Your task to perform on an android device: Open calendar and show me the fourth week of next month Image 0: 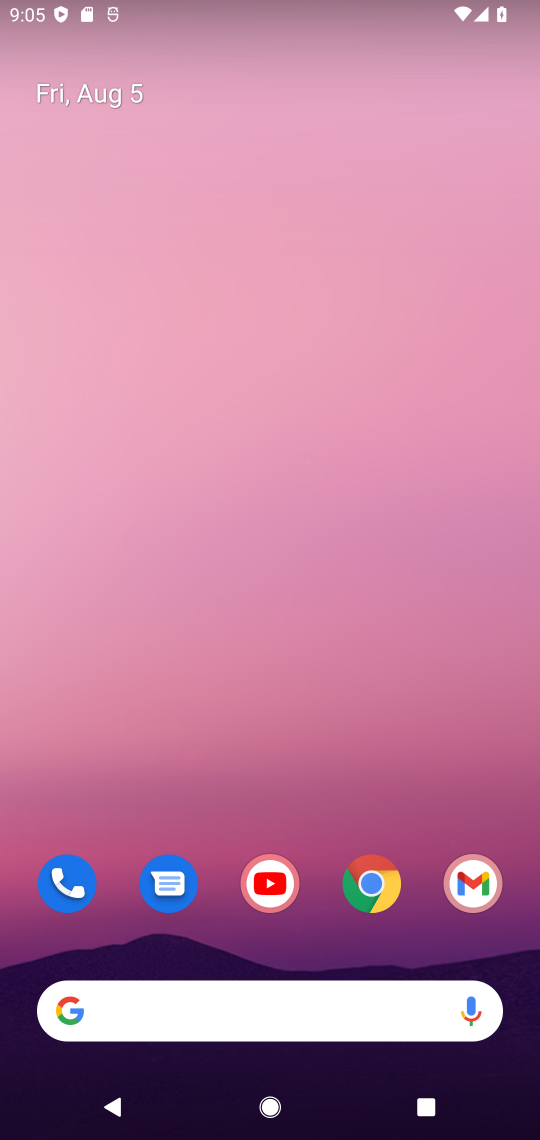
Step 0: drag from (245, 866) to (313, 224)
Your task to perform on an android device: Open calendar and show me the fourth week of next month Image 1: 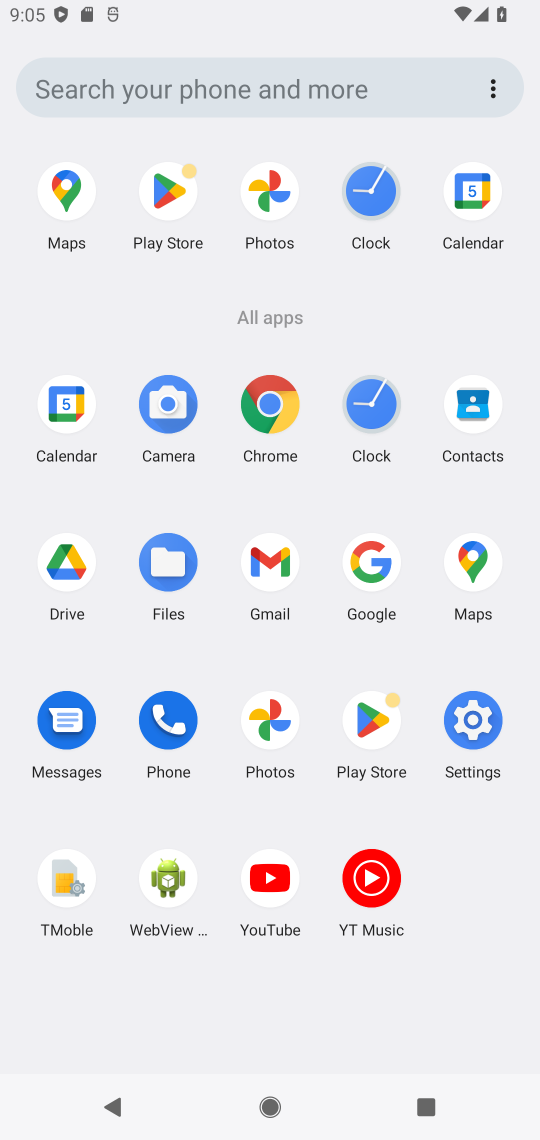
Step 1: click (463, 189)
Your task to perform on an android device: Open calendar and show me the fourth week of next month Image 2: 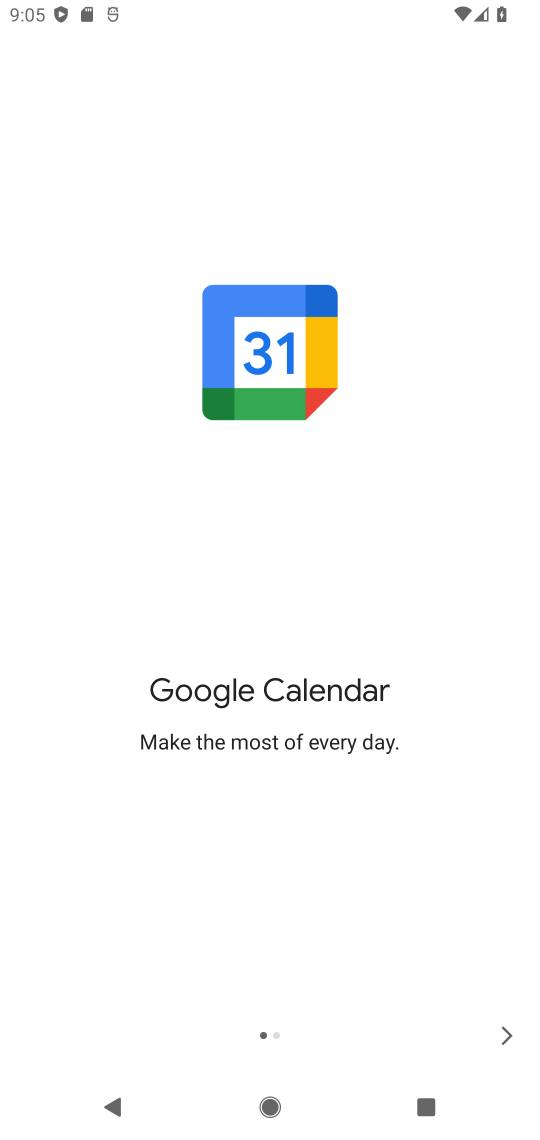
Step 2: click (489, 1034)
Your task to perform on an android device: Open calendar and show me the fourth week of next month Image 3: 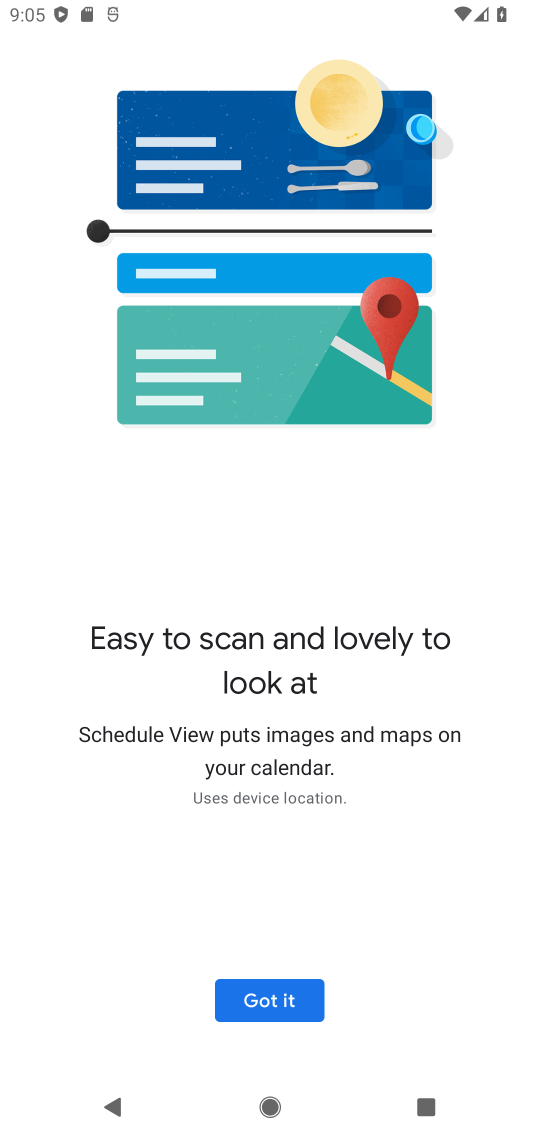
Step 3: click (497, 1031)
Your task to perform on an android device: Open calendar and show me the fourth week of next month Image 4: 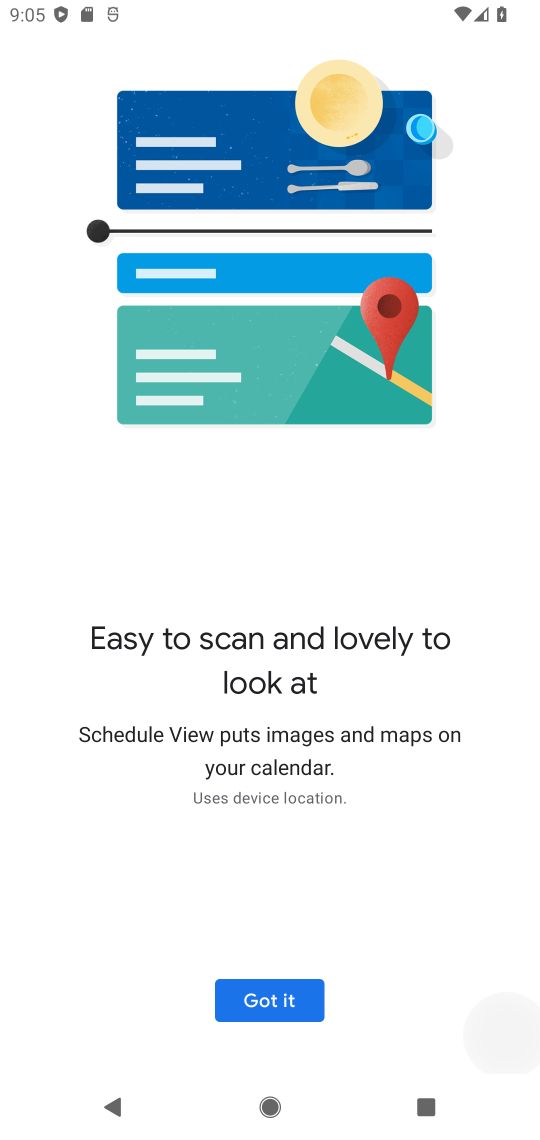
Step 4: click (301, 1012)
Your task to perform on an android device: Open calendar and show me the fourth week of next month Image 5: 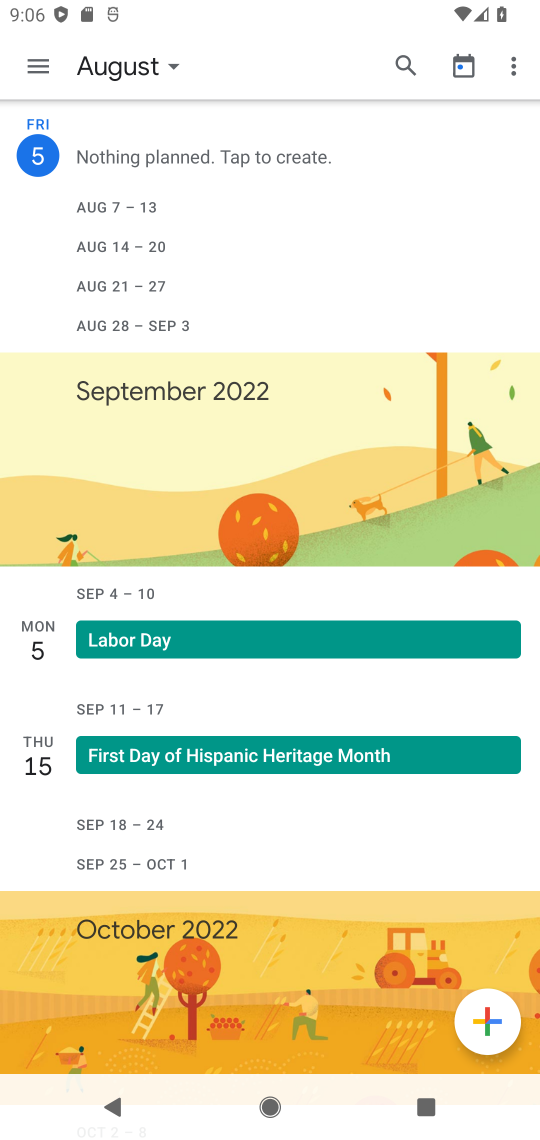
Step 5: click (138, 66)
Your task to perform on an android device: Open calendar and show me the fourth week of next month Image 6: 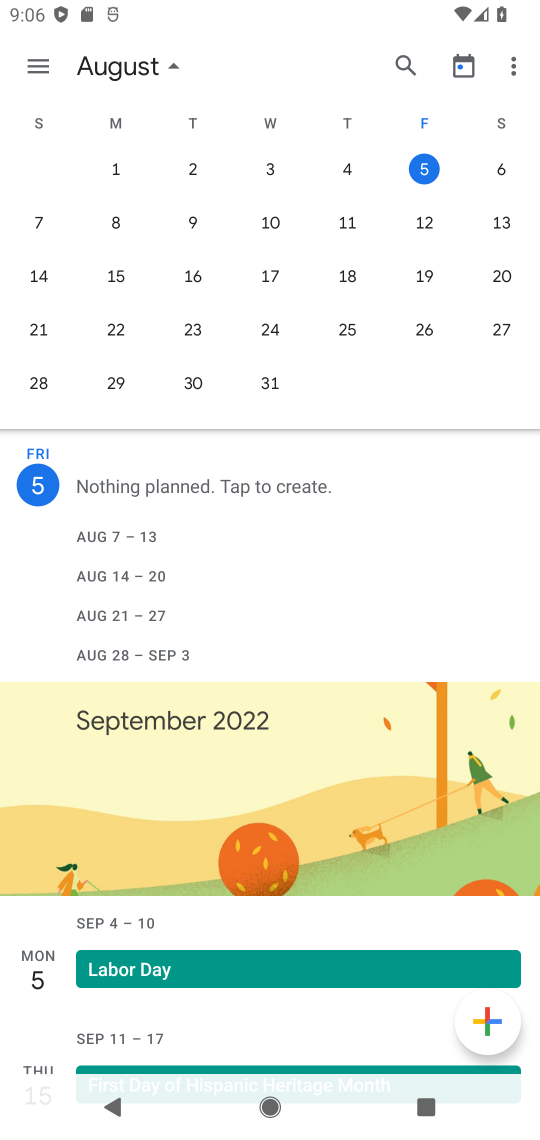
Step 6: drag from (507, 228) to (0, 272)
Your task to perform on an android device: Open calendar and show me the fourth week of next month Image 7: 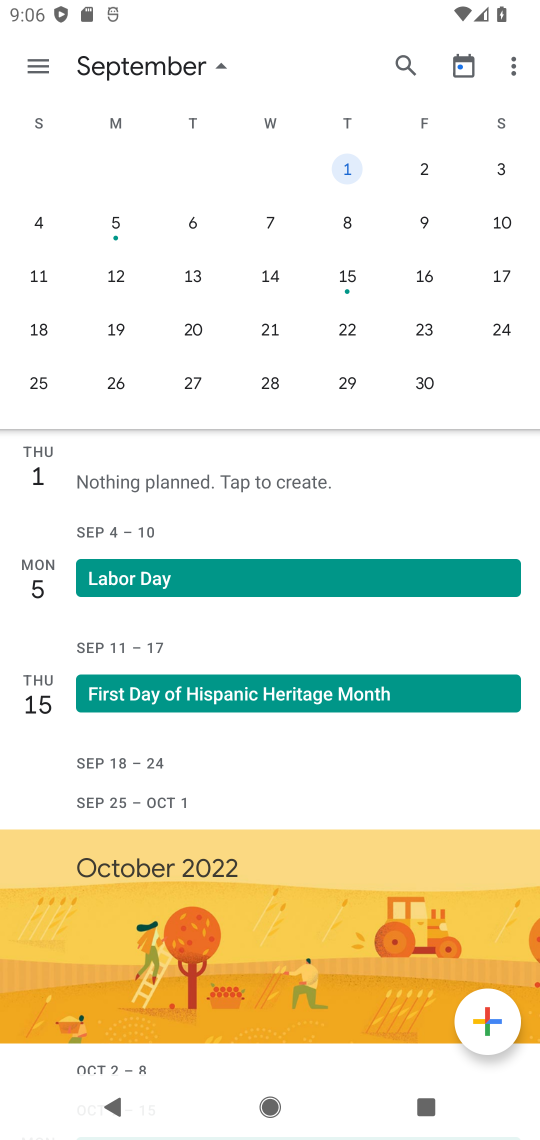
Step 7: click (109, 319)
Your task to perform on an android device: Open calendar and show me the fourth week of next month Image 8: 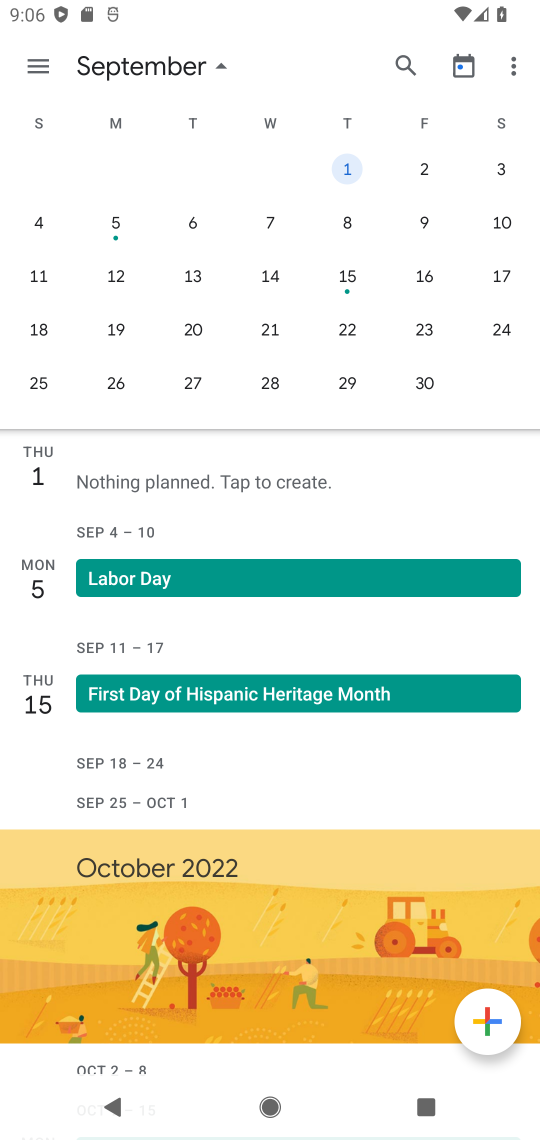
Step 8: click (121, 325)
Your task to perform on an android device: Open calendar and show me the fourth week of next month Image 9: 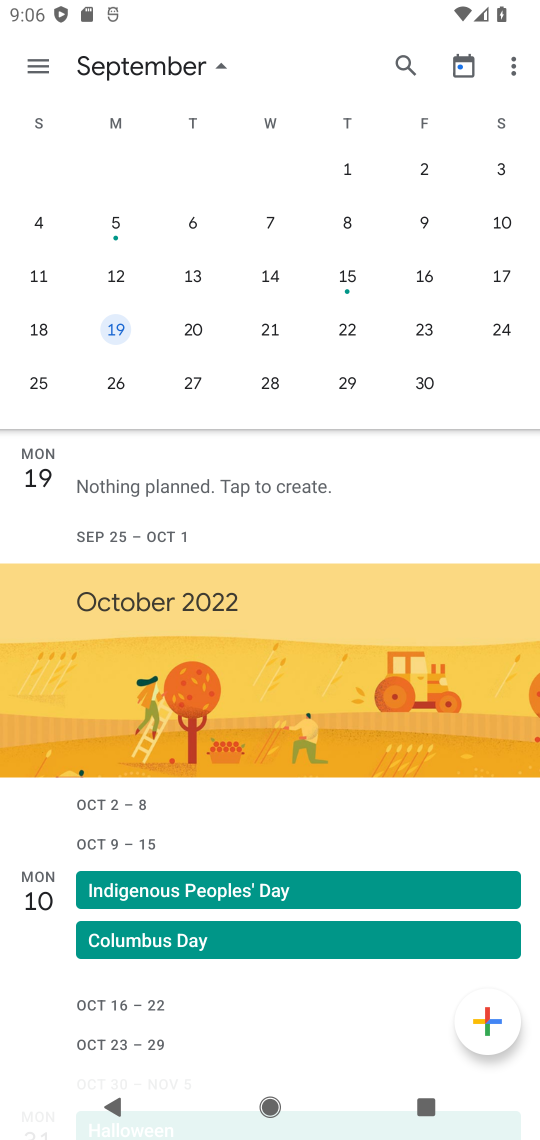
Step 9: task complete